Your task to perform on an android device: turn on translation in the chrome app Image 0: 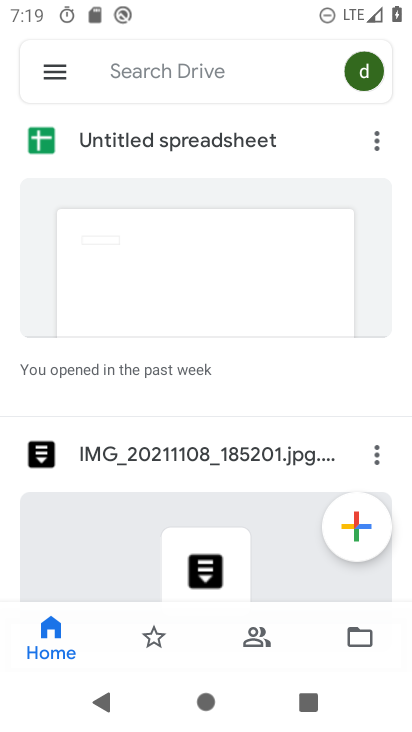
Step 0: press home button
Your task to perform on an android device: turn on translation in the chrome app Image 1: 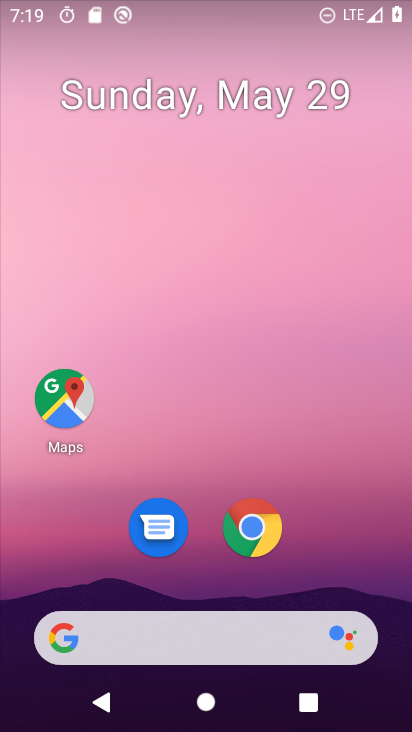
Step 1: drag from (386, 605) to (256, 71)
Your task to perform on an android device: turn on translation in the chrome app Image 2: 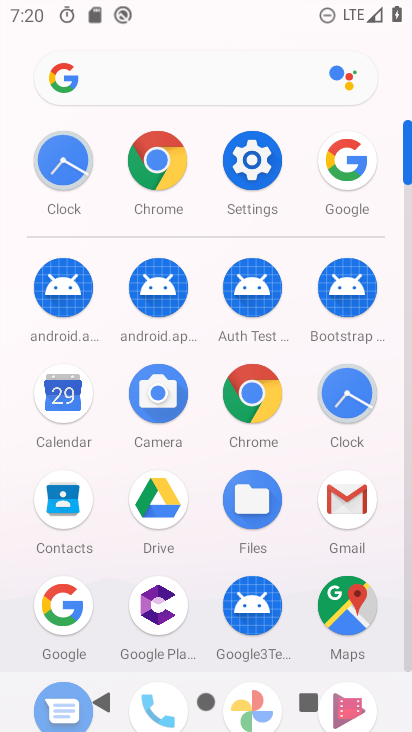
Step 2: click (175, 167)
Your task to perform on an android device: turn on translation in the chrome app Image 3: 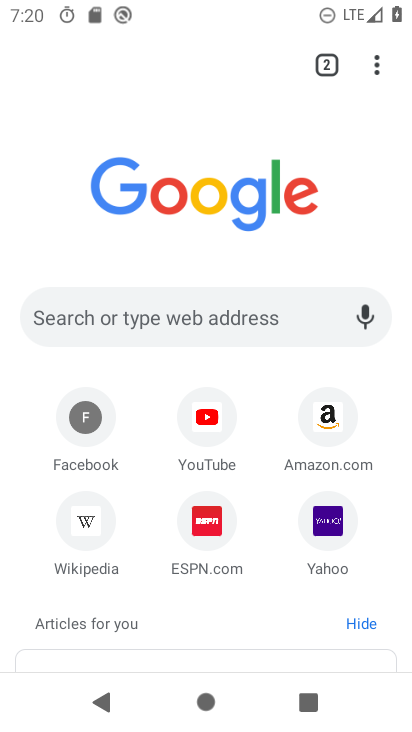
Step 3: click (377, 59)
Your task to perform on an android device: turn on translation in the chrome app Image 4: 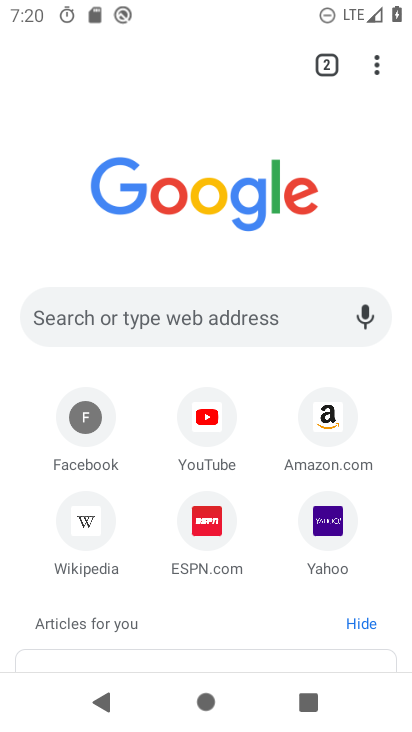
Step 4: click (378, 60)
Your task to perform on an android device: turn on translation in the chrome app Image 5: 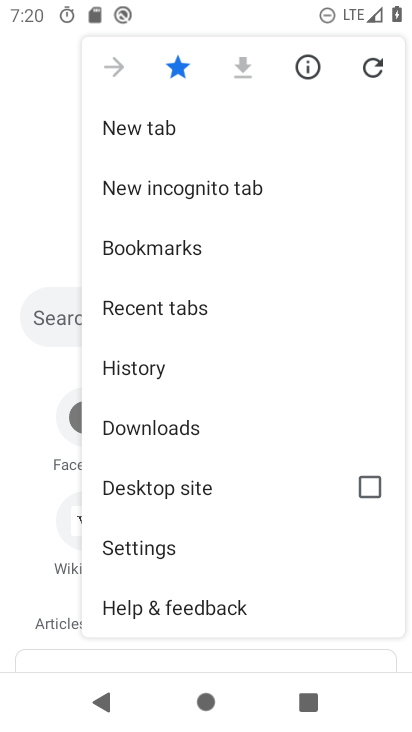
Step 5: click (159, 551)
Your task to perform on an android device: turn on translation in the chrome app Image 6: 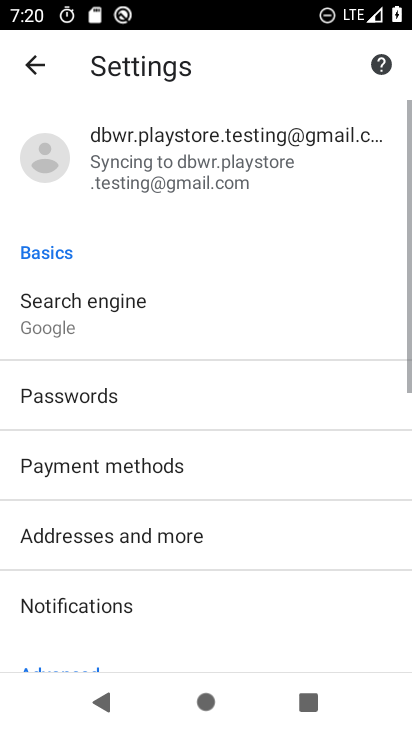
Step 6: drag from (153, 580) to (183, 152)
Your task to perform on an android device: turn on translation in the chrome app Image 7: 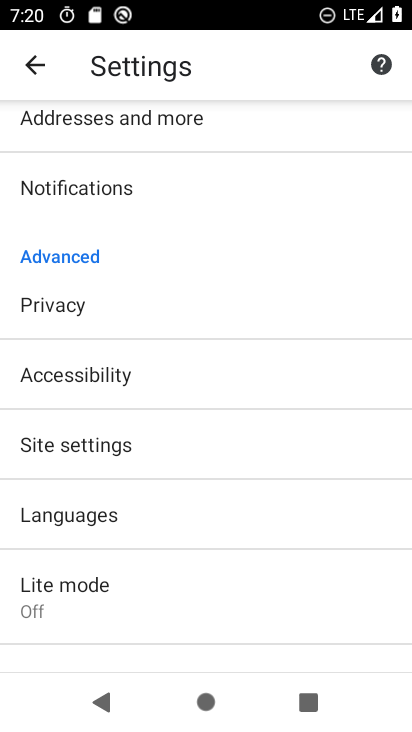
Step 7: click (136, 530)
Your task to perform on an android device: turn on translation in the chrome app Image 8: 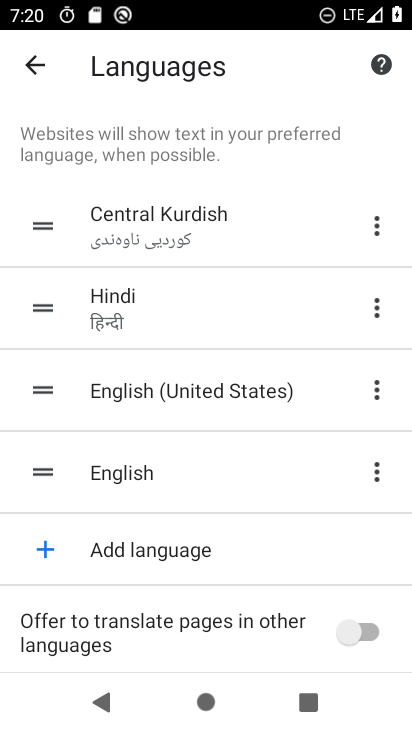
Step 8: click (313, 627)
Your task to perform on an android device: turn on translation in the chrome app Image 9: 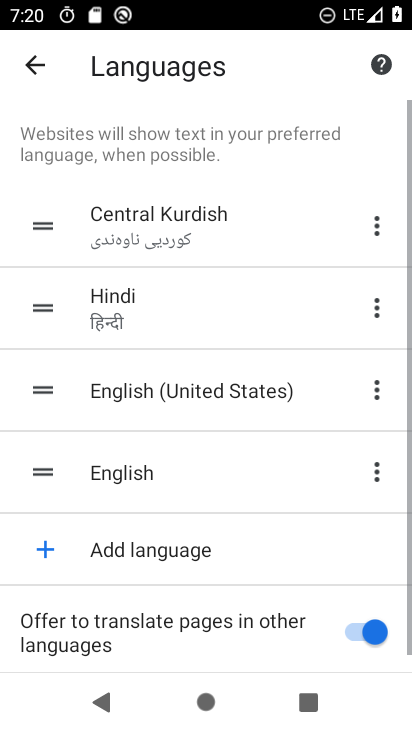
Step 9: task complete